Your task to perform on an android device: turn off notifications in google photos Image 0: 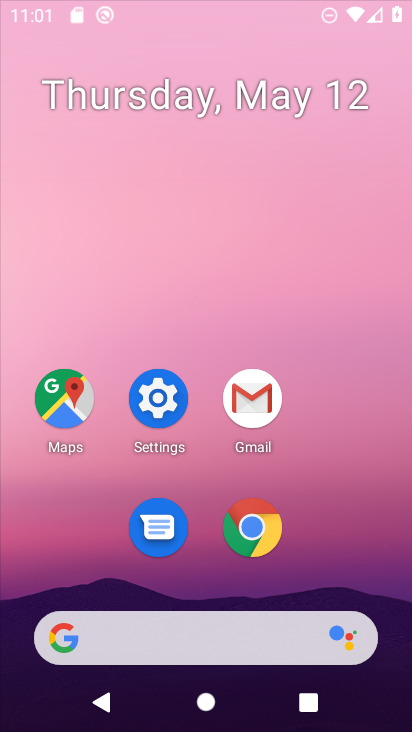
Step 0: drag from (342, 534) to (385, 10)
Your task to perform on an android device: turn off notifications in google photos Image 1: 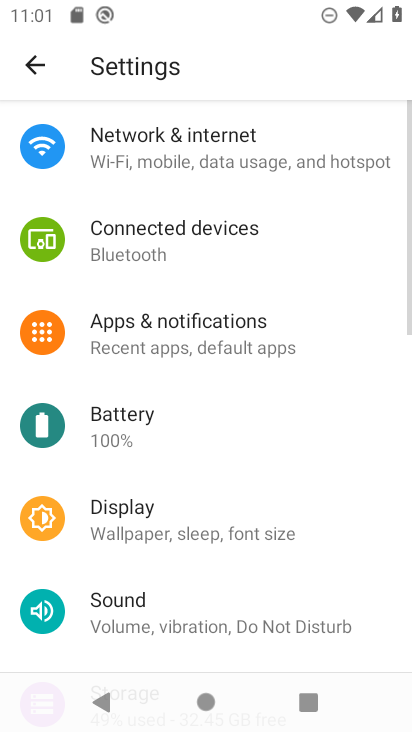
Step 1: press home button
Your task to perform on an android device: turn off notifications in google photos Image 2: 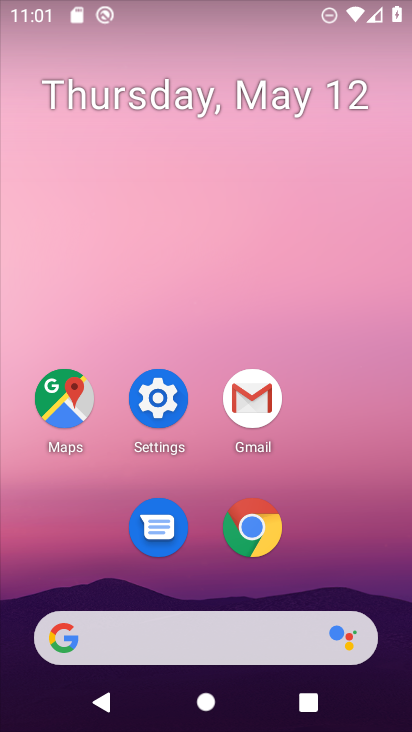
Step 2: drag from (336, 537) to (368, 13)
Your task to perform on an android device: turn off notifications in google photos Image 3: 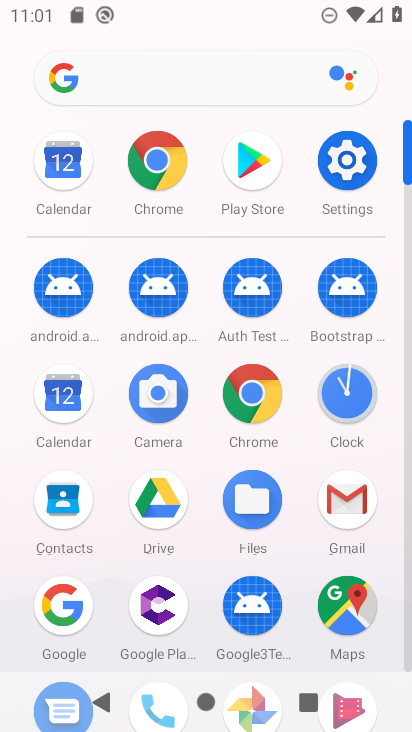
Step 3: drag from (362, 411) to (162, 304)
Your task to perform on an android device: turn off notifications in google photos Image 4: 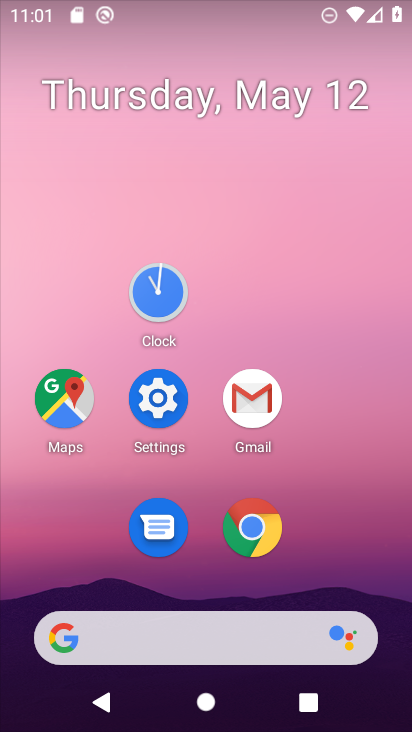
Step 4: click (162, 304)
Your task to perform on an android device: turn off notifications in google photos Image 5: 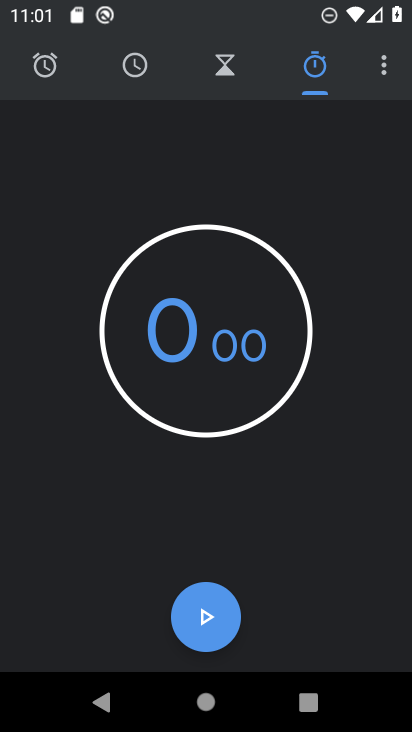
Step 5: press home button
Your task to perform on an android device: turn off notifications in google photos Image 6: 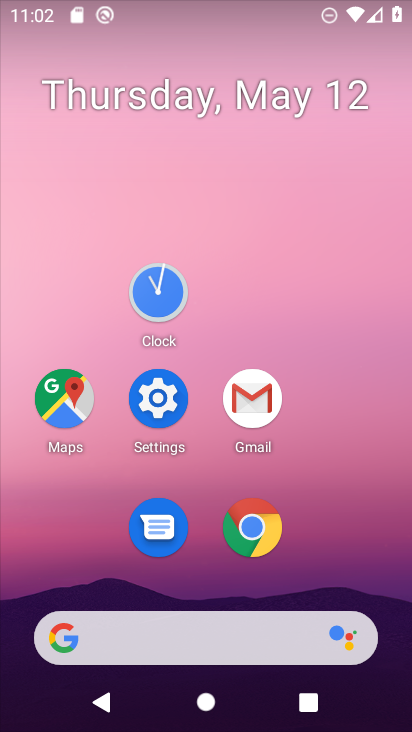
Step 6: drag from (320, 478) to (347, 207)
Your task to perform on an android device: turn off notifications in google photos Image 7: 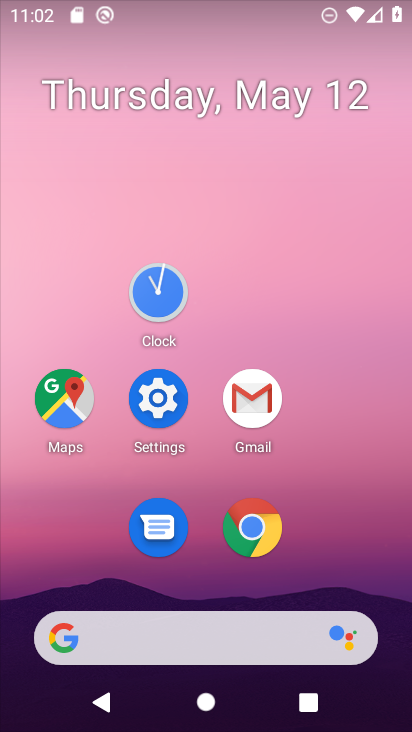
Step 7: drag from (373, 319) to (378, 160)
Your task to perform on an android device: turn off notifications in google photos Image 8: 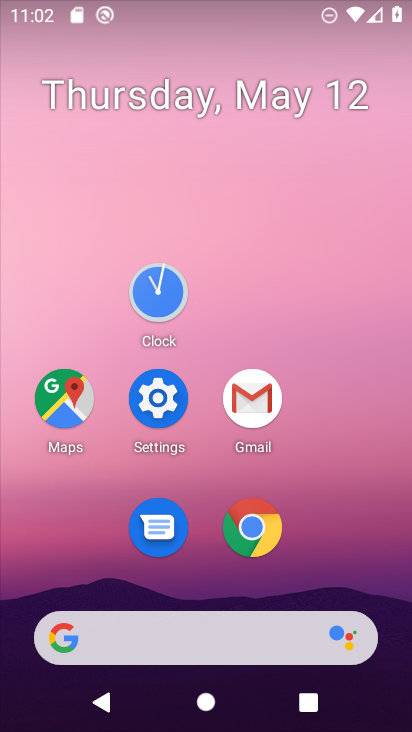
Step 8: drag from (316, 487) to (346, 134)
Your task to perform on an android device: turn off notifications in google photos Image 9: 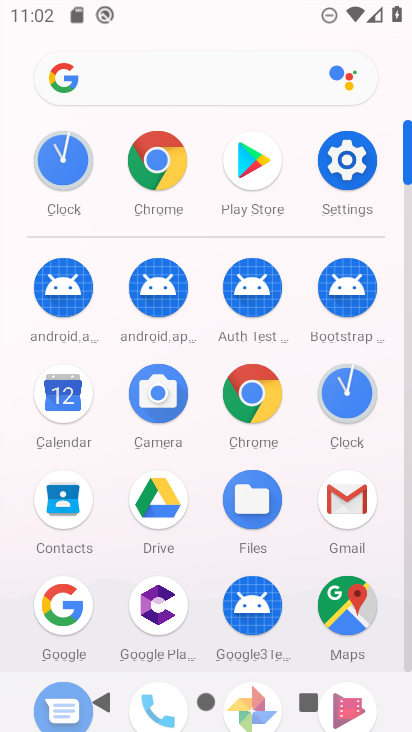
Step 9: click (408, 643)
Your task to perform on an android device: turn off notifications in google photos Image 10: 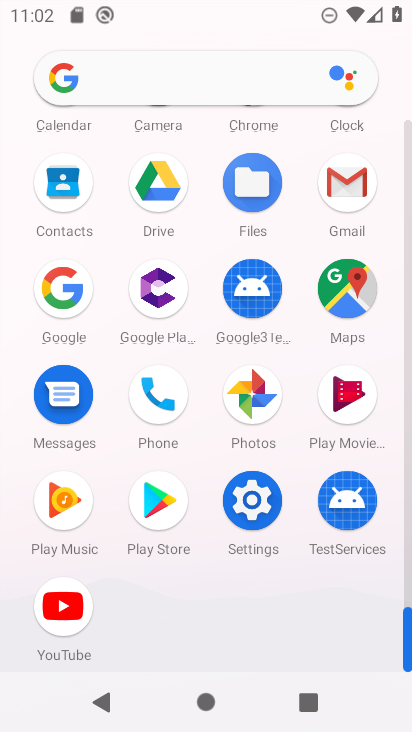
Step 10: click (243, 411)
Your task to perform on an android device: turn off notifications in google photos Image 11: 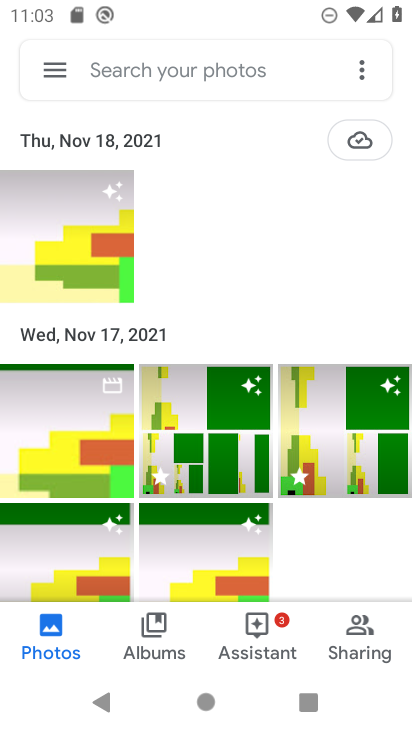
Step 11: click (65, 57)
Your task to perform on an android device: turn off notifications in google photos Image 12: 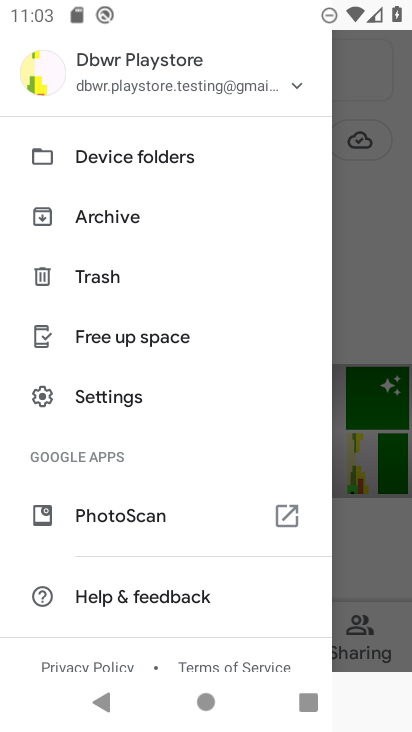
Step 12: click (154, 388)
Your task to perform on an android device: turn off notifications in google photos Image 13: 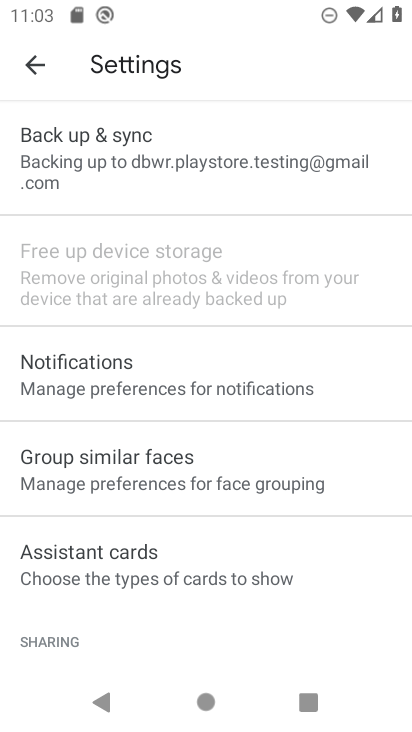
Step 13: click (144, 400)
Your task to perform on an android device: turn off notifications in google photos Image 14: 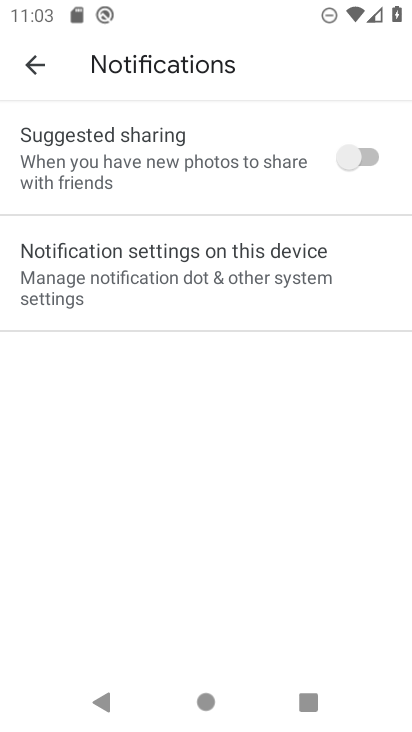
Step 14: click (351, 147)
Your task to perform on an android device: turn off notifications in google photos Image 15: 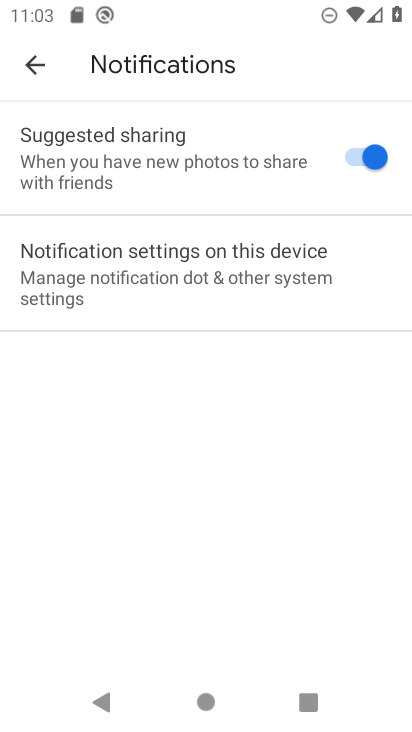
Step 15: task complete